Your task to perform on an android device: toggle notification dots Image 0: 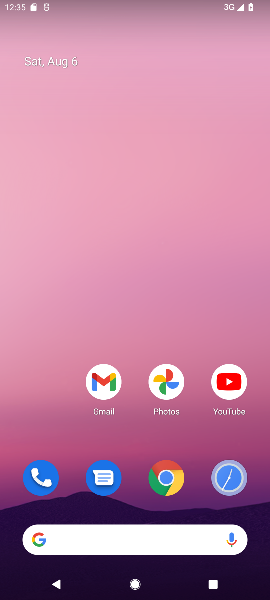
Step 0: drag from (126, 527) to (178, 80)
Your task to perform on an android device: toggle notification dots Image 1: 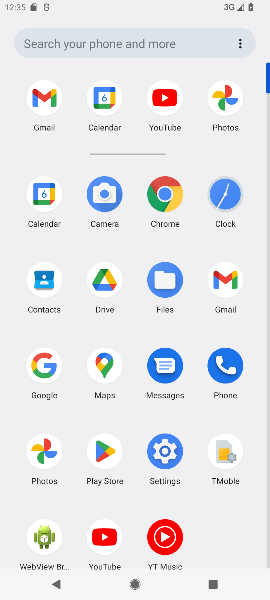
Step 1: click (158, 441)
Your task to perform on an android device: toggle notification dots Image 2: 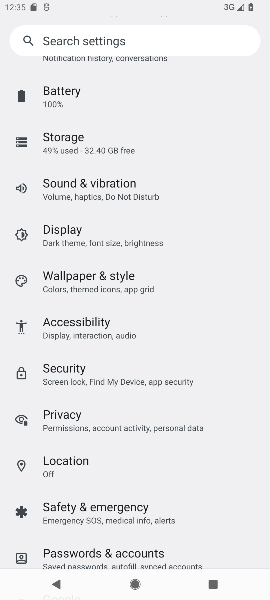
Step 2: drag from (79, 82) to (141, 393)
Your task to perform on an android device: toggle notification dots Image 3: 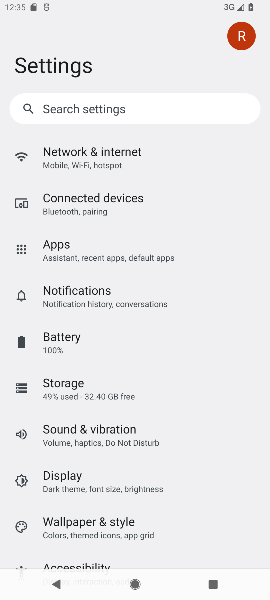
Step 3: click (73, 289)
Your task to perform on an android device: toggle notification dots Image 4: 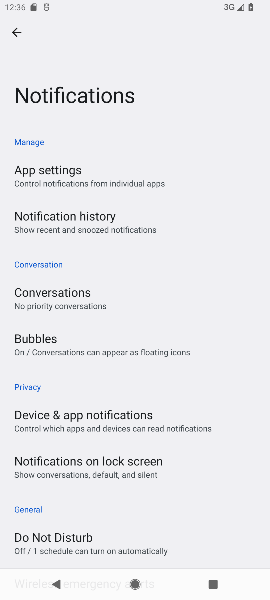
Step 4: drag from (57, 529) to (94, 192)
Your task to perform on an android device: toggle notification dots Image 5: 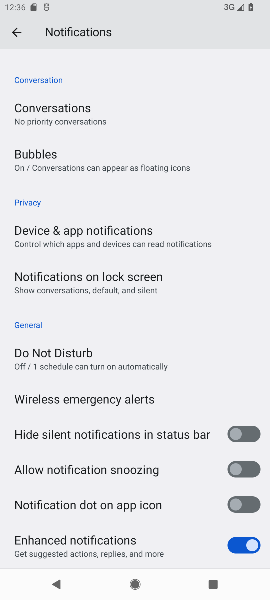
Step 5: click (236, 507)
Your task to perform on an android device: toggle notification dots Image 6: 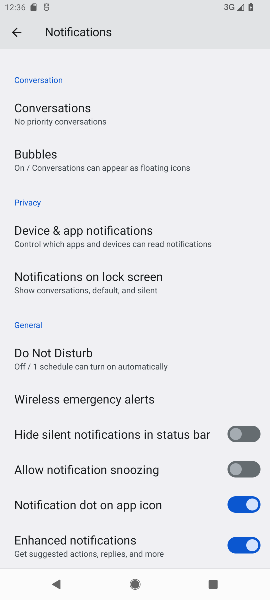
Step 6: task complete